Your task to perform on an android device: delete browsing data in the chrome app Image 0: 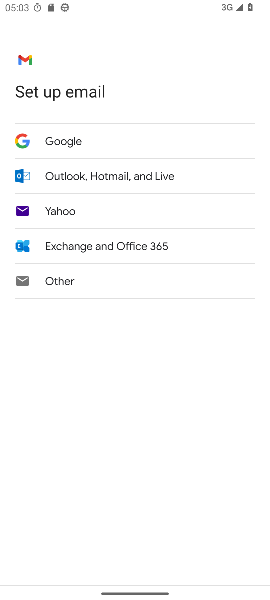
Step 0: press home button
Your task to perform on an android device: delete browsing data in the chrome app Image 1: 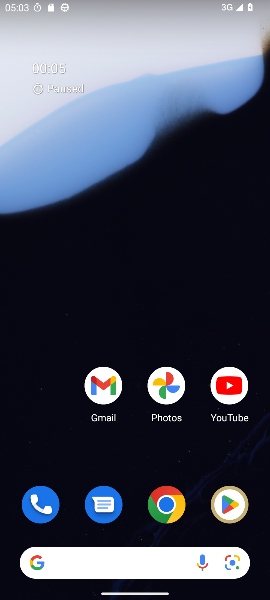
Step 1: click (164, 499)
Your task to perform on an android device: delete browsing data in the chrome app Image 2: 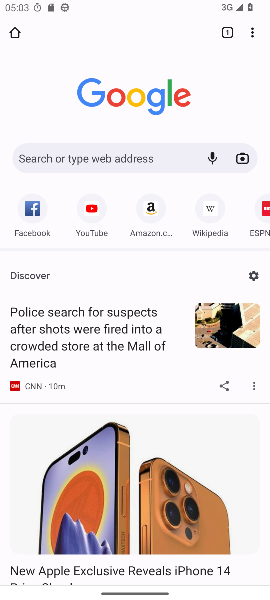
Step 2: click (250, 35)
Your task to perform on an android device: delete browsing data in the chrome app Image 3: 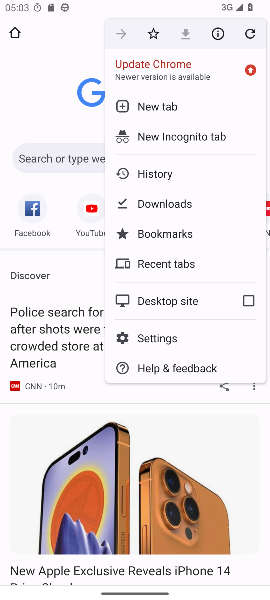
Step 3: click (150, 169)
Your task to perform on an android device: delete browsing data in the chrome app Image 4: 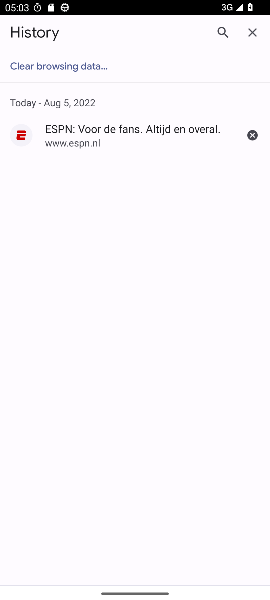
Step 4: click (51, 65)
Your task to perform on an android device: delete browsing data in the chrome app Image 5: 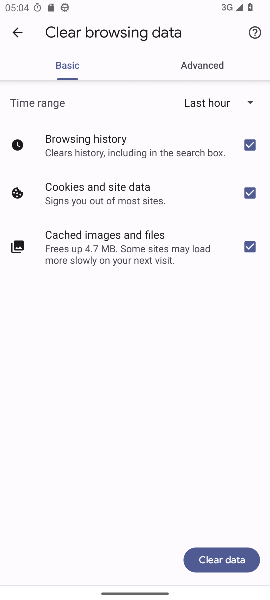
Step 5: click (250, 189)
Your task to perform on an android device: delete browsing data in the chrome app Image 6: 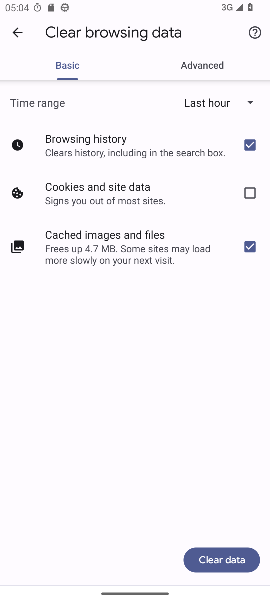
Step 6: click (251, 242)
Your task to perform on an android device: delete browsing data in the chrome app Image 7: 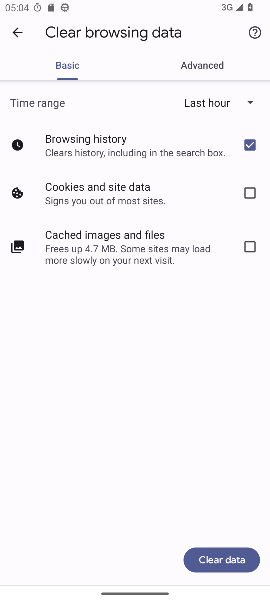
Step 7: click (216, 549)
Your task to perform on an android device: delete browsing data in the chrome app Image 8: 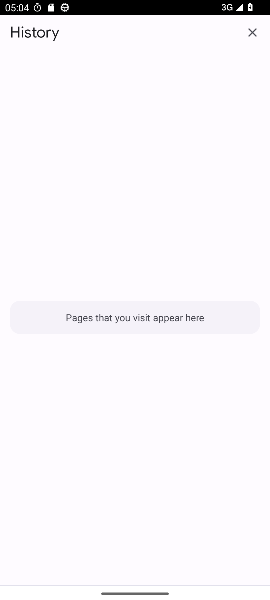
Step 8: task complete